Your task to perform on an android device: Search for Italian restaurants on Maps Image 0: 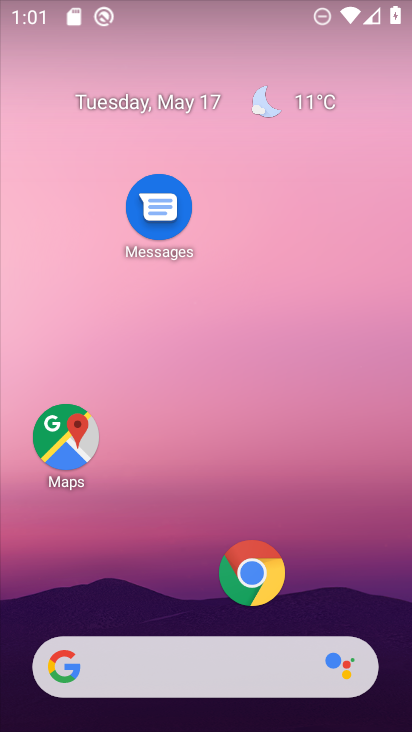
Step 0: click (65, 430)
Your task to perform on an android device: Search for Italian restaurants on Maps Image 1: 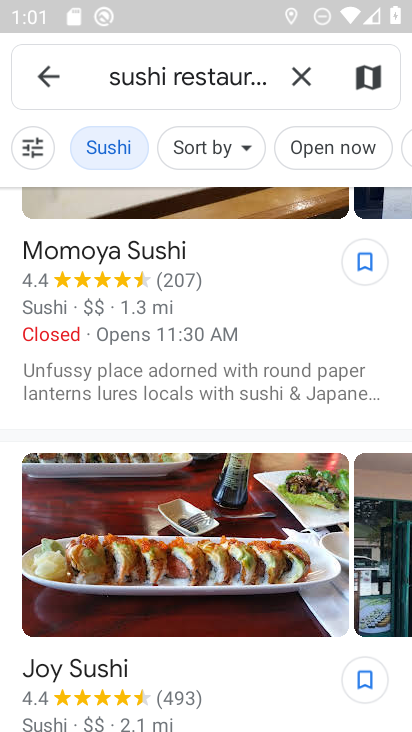
Step 1: click (299, 82)
Your task to perform on an android device: Search for Italian restaurants on Maps Image 2: 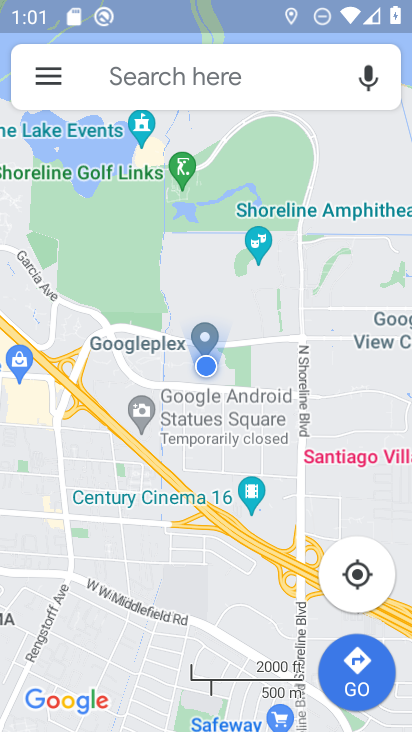
Step 2: click (174, 78)
Your task to perform on an android device: Search for Italian restaurants on Maps Image 3: 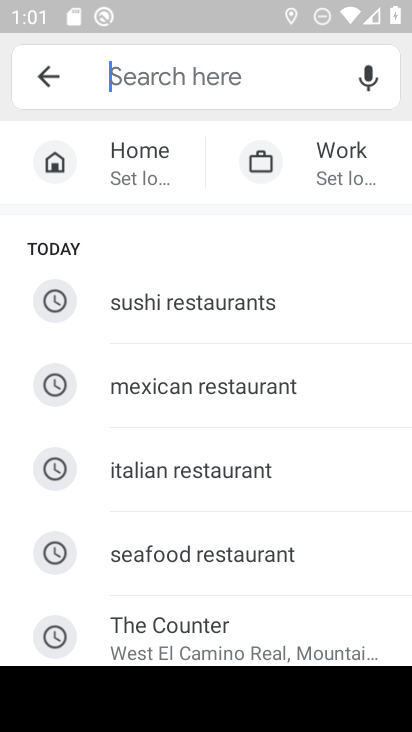
Step 3: click (198, 479)
Your task to perform on an android device: Search for Italian restaurants on Maps Image 4: 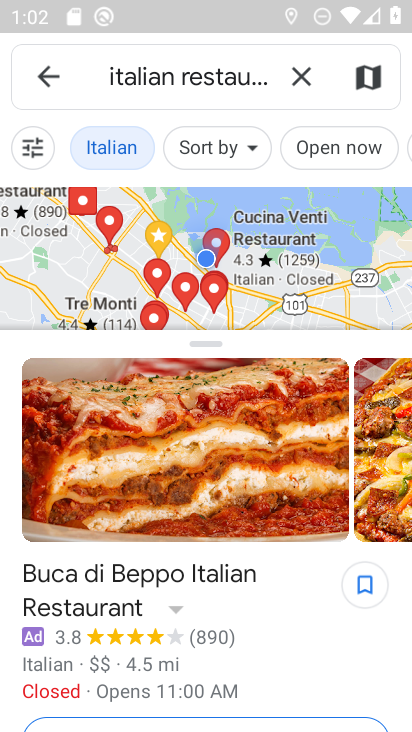
Step 4: task complete